Your task to perform on an android device: check storage Image 0: 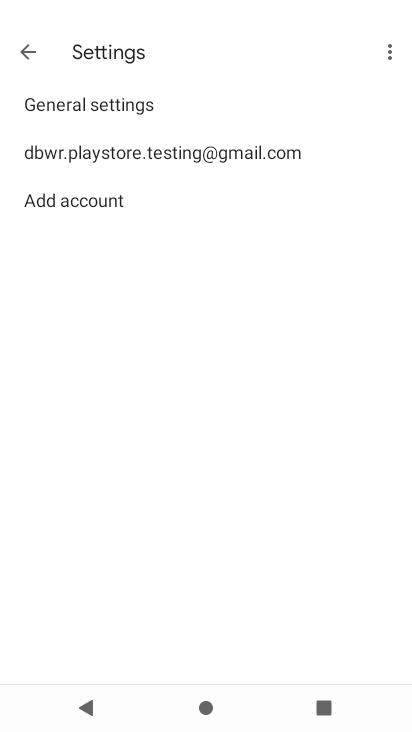
Step 0: press home button
Your task to perform on an android device: check storage Image 1: 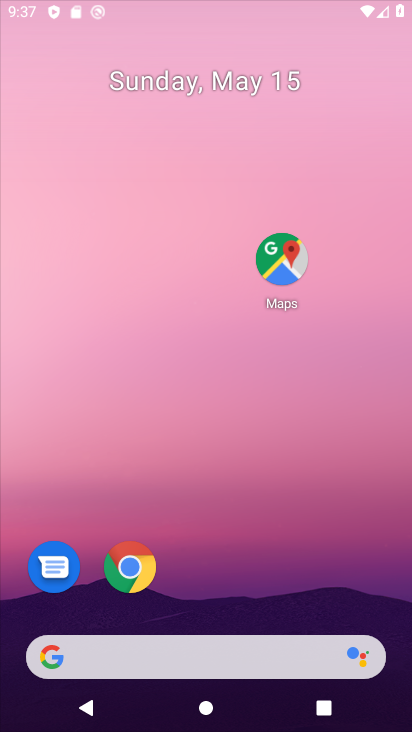
Step 1: drag from (225, 582) to (225, 174)
Your task to perform on an android device: check storage Image 2: 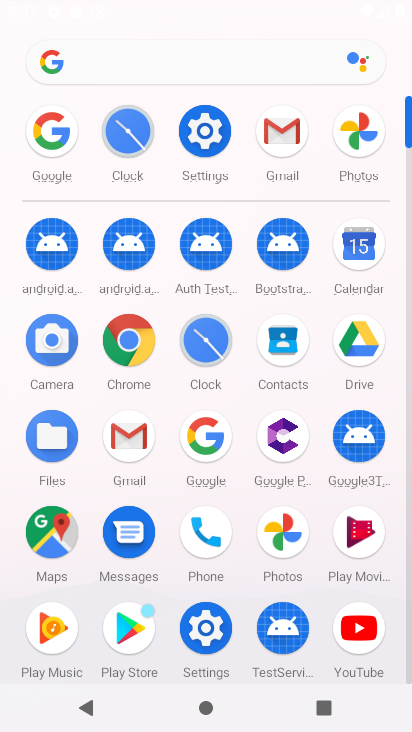
Step 2: click (199, 633)
Your task to perform on an android device: check storage Image 3: 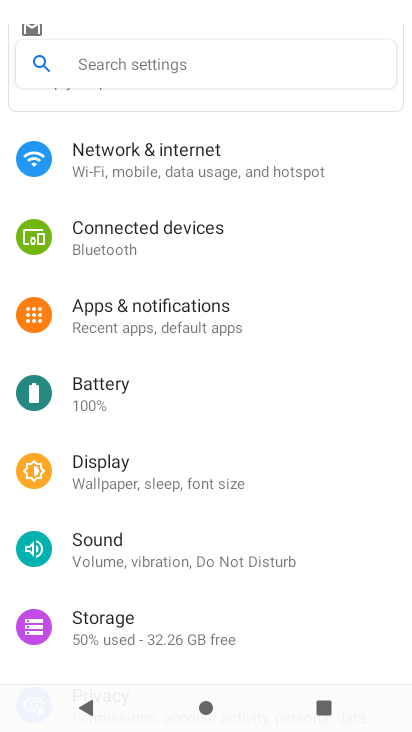
Step 3: drag from (191, 621) to (146, 445)
Your task to perform on an android device: check storage Image 4: 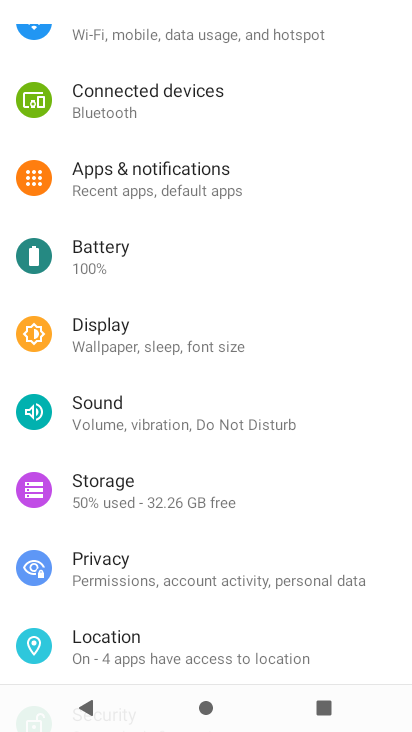
Step 4: click (186, 497)
Your task to perform on an android device: check storage Image 5: 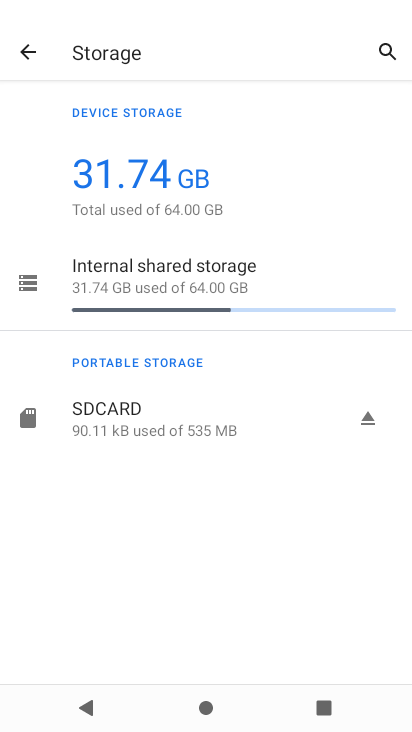
Step 5: task complete